Your task to perform on an android device: clear all cookies in the chrome app Image 0: 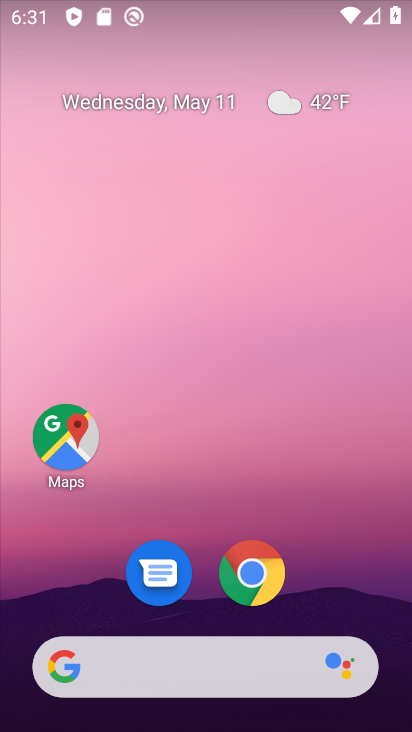
Step 0: drag from (273, 332) to (293, 94)
Your task to perform on an android device: clear all cookies in the chrome app Image 1: 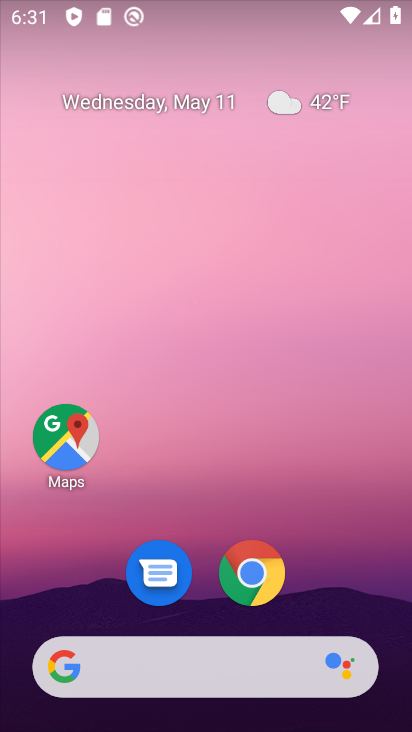
Step 1: drag from (316, 559) to (306, 315)
Your task to perform on an android device: clear all cookies in the chrome app Image 2: 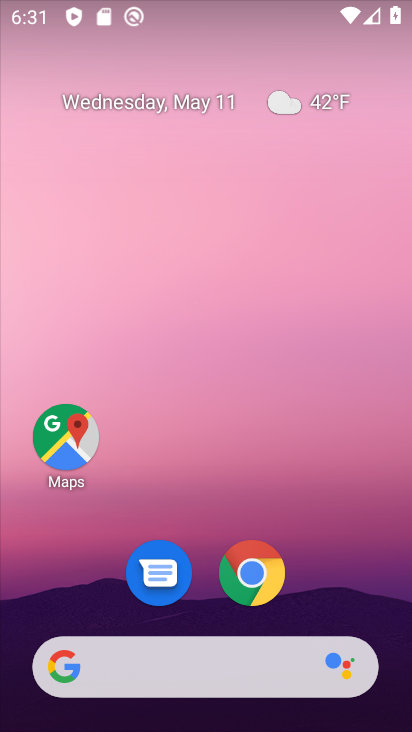
Step 2: click (241, 612)
Your task to perform on an android device: clear all cookies in the chrome app Image 3: 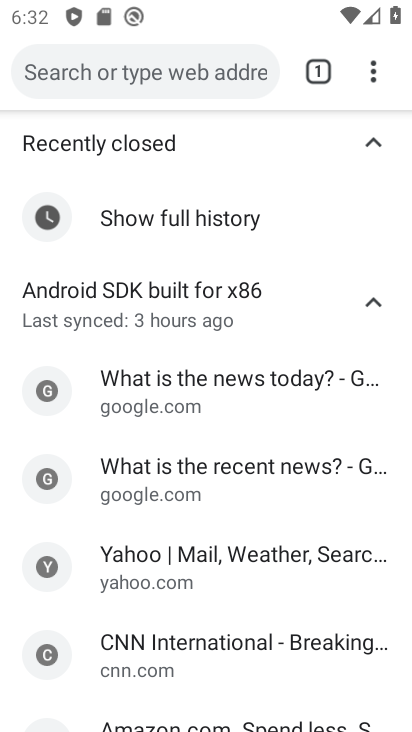
Step 3: click (374, 68)
Your task to perform on an android device: clear all cookies in the chrome app Image 4: 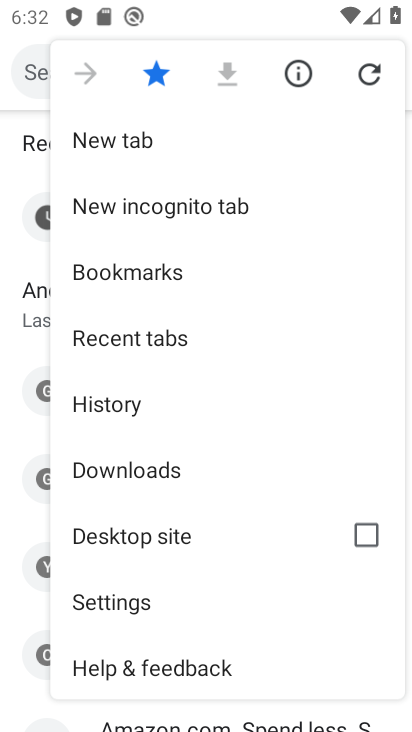
Step 4: click (98, 391)
Your task to perform on an android device: clear all cookies in the chrome app Image 5: 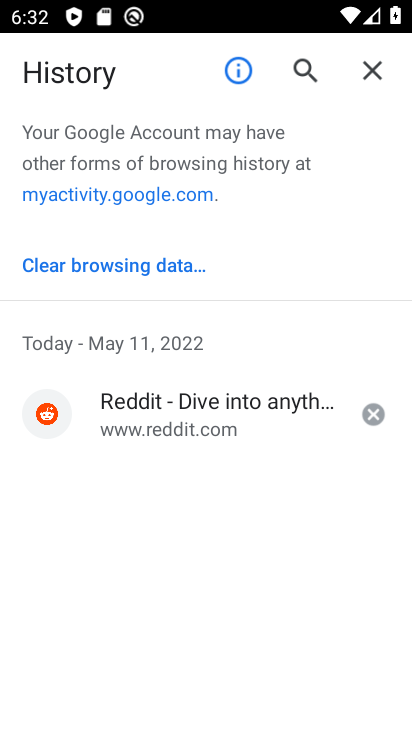
Step 5: click (154, 266)
Your task to perform on an android device: clear all cookies in the chrome app Image 6: 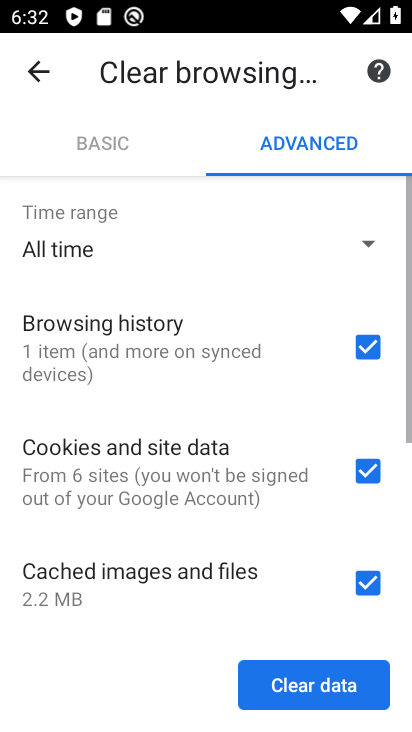
Step 6: click (94, 122)
Your task to perform on an android device: clear all cookies in the chrome app Image 7: 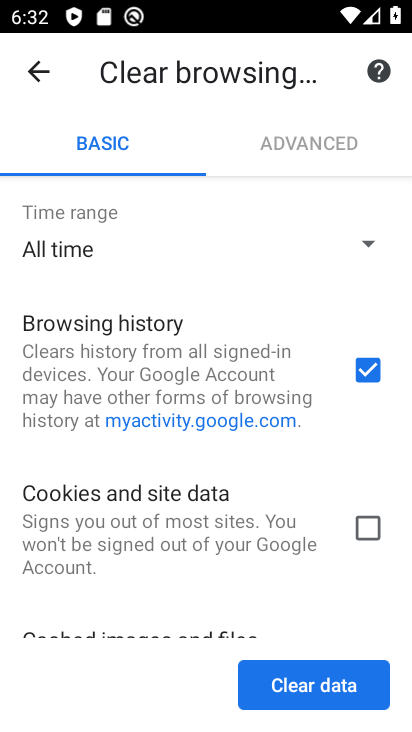
Step 7: click (375, 365)
Your task to perform on an android device: clear all cookies in the chrome app Image 8: 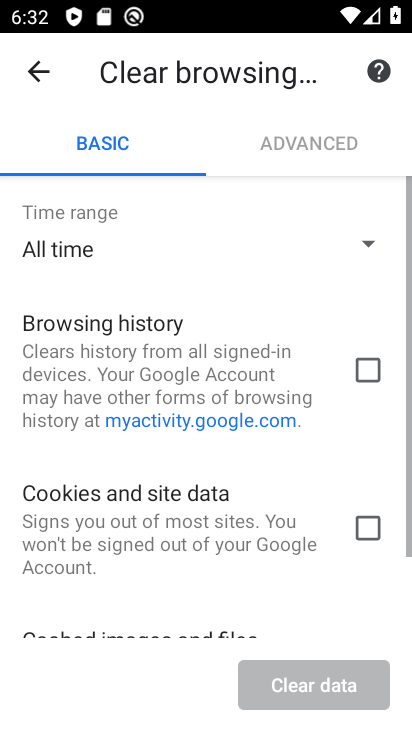
Step 8: click (372, 526)
Your task to perform on an android device: clear all cookies in the chrome app Image 9: 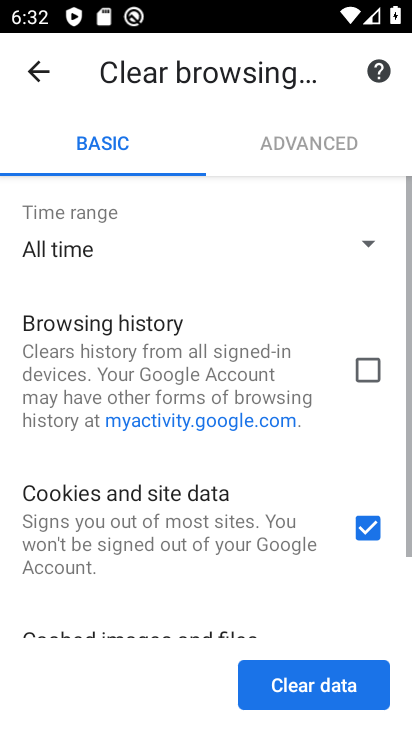
Step 9: drag from (239, 612) to (263, 322)
Your task to perform on an android device: clear all cookies in the chrome app Image 10: 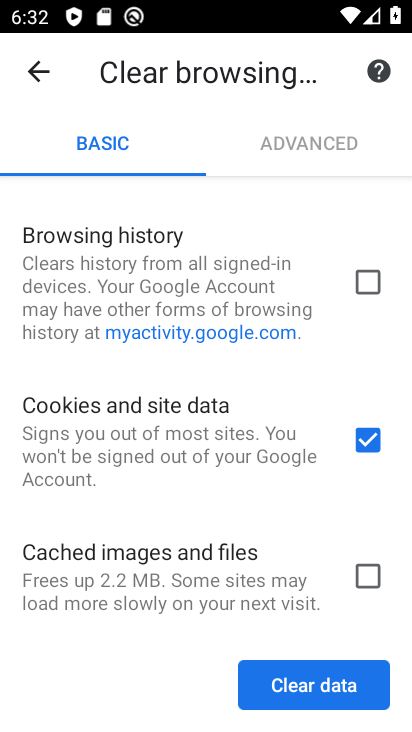
Step 10: click (289, 671)
Your task to perform on an android device: clear all cookies in the chrome app Image 11: 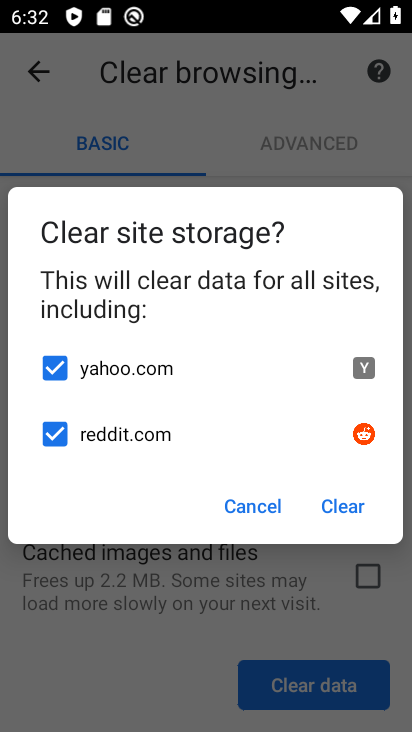
Step 11: click (333, 506)
Your task to perform on an android device: clear all cookies in the chrome app Image 12: 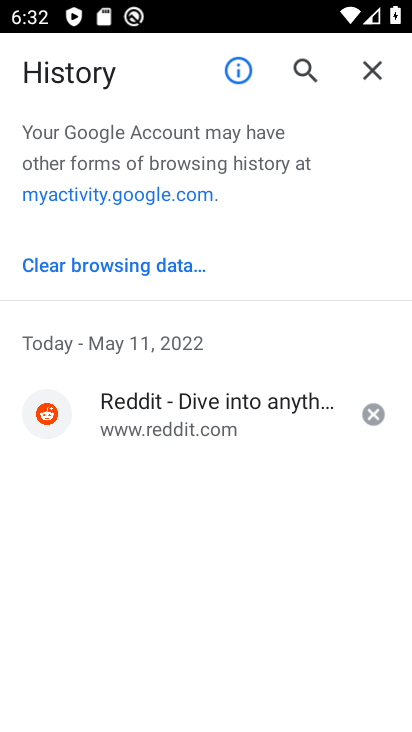
Step 12: task complete